Your task to perform on an android device: Show me the alarms in the clock app Image 0: 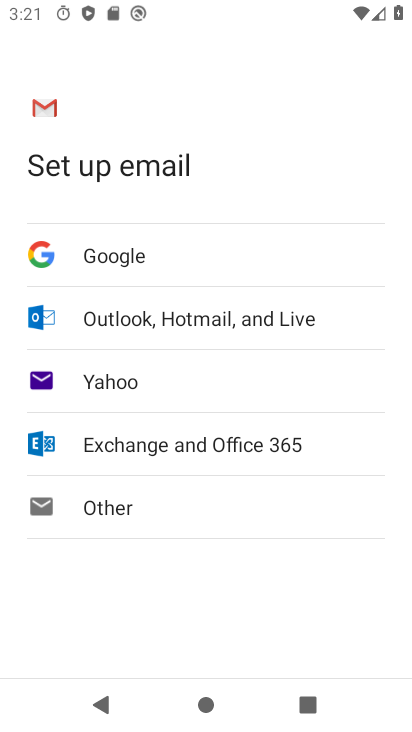
Step 0: press home button
Your task to perform on an android device: Show me the alarms in the clock app Image 1: 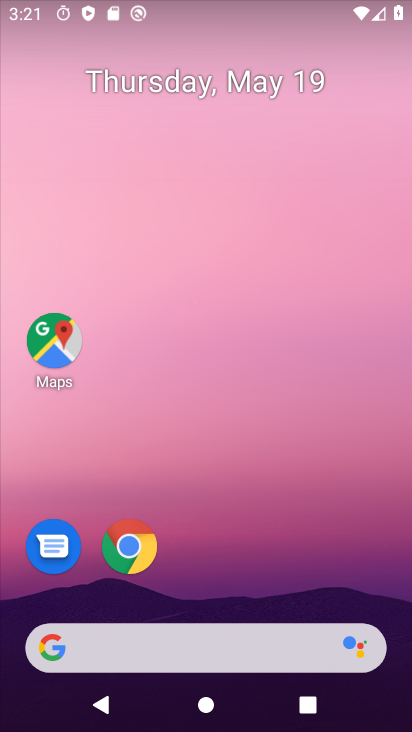
Step 1: drag from (211, 599) to (207, 62)
Your task to perform on an android device: Show me the alarms in the clock app Image 2: 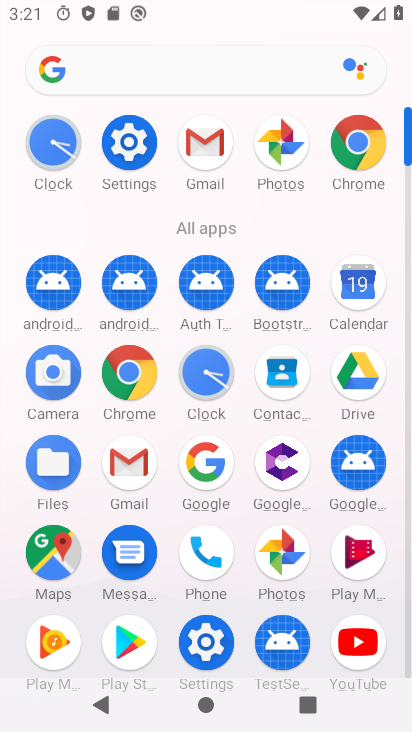
Step 2: click (205, 366)
Your task to perform on an android device: Show me the alarms in the clock app Image 3: 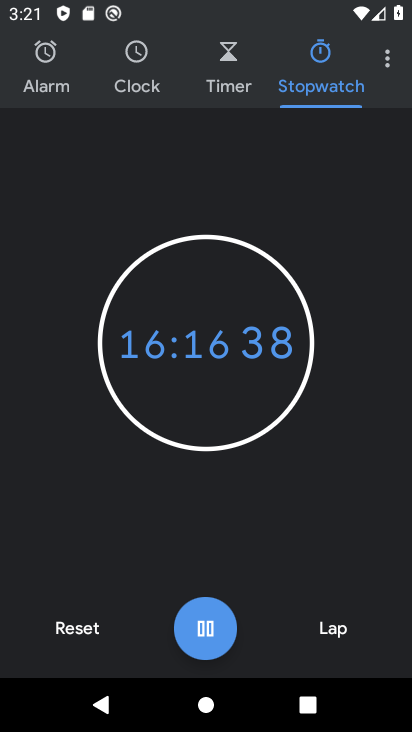
Step 3: click (72, 627)
Your task to perform on an android device: Show me the alarms in the clock app Image 4: 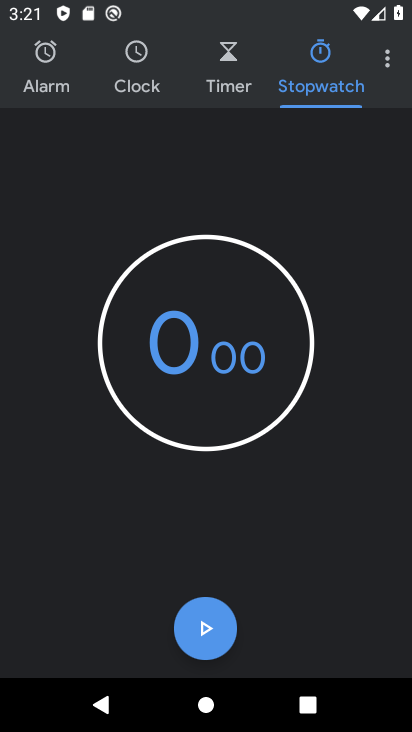
Step 4: click (43, 61)
Your task to perform on an android device: Show me the alarms in the clock app Image 5: 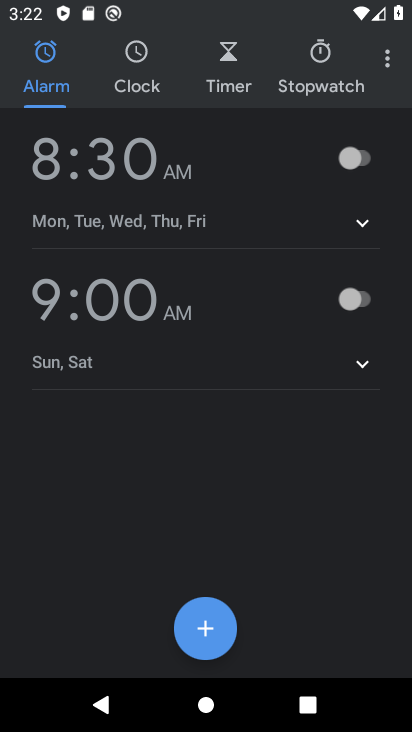
Step 5: click (96, 163)
Your task to perform on an android device: Show me the alarms in the clock app Image 6: 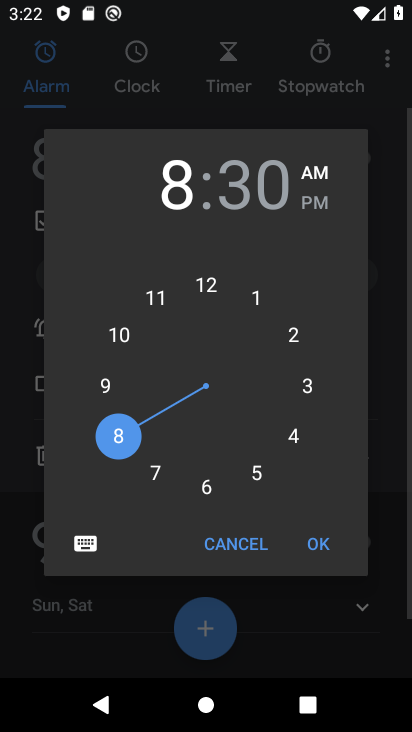
Step 6: click (323, 547)
Your task to perform on an android device: Show me the alarms in the clock app Image 7: 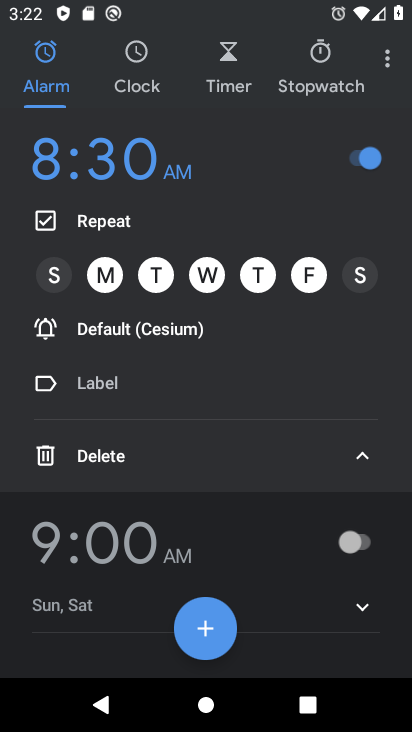
Step 7: task complete